Your task to perform on an android device: uninstall "Google Play Games" Image 0: 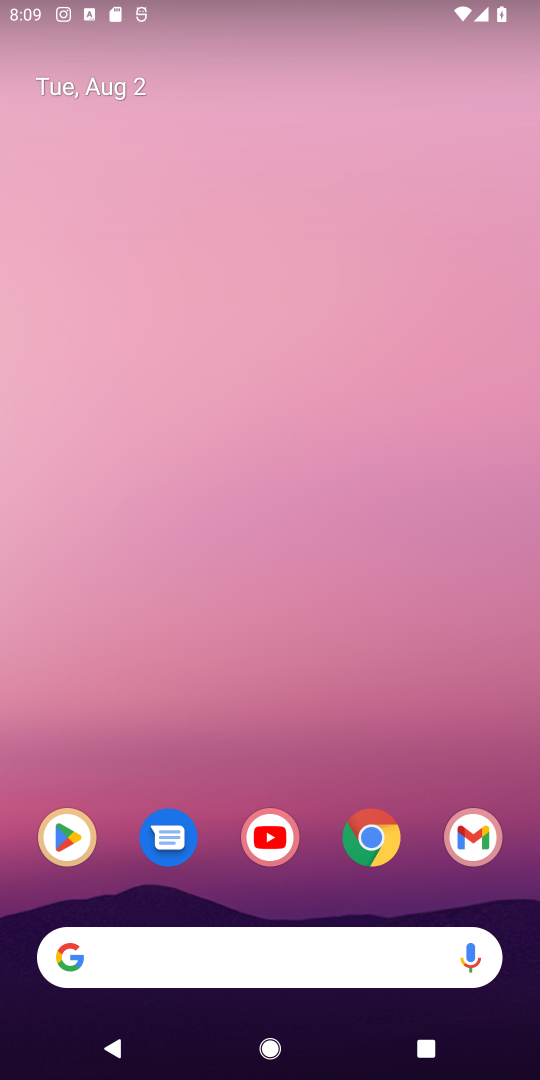
Step 0: click (60, 850)
Your task to perform on an android device: uninstall "Google Play Games" Image 1: 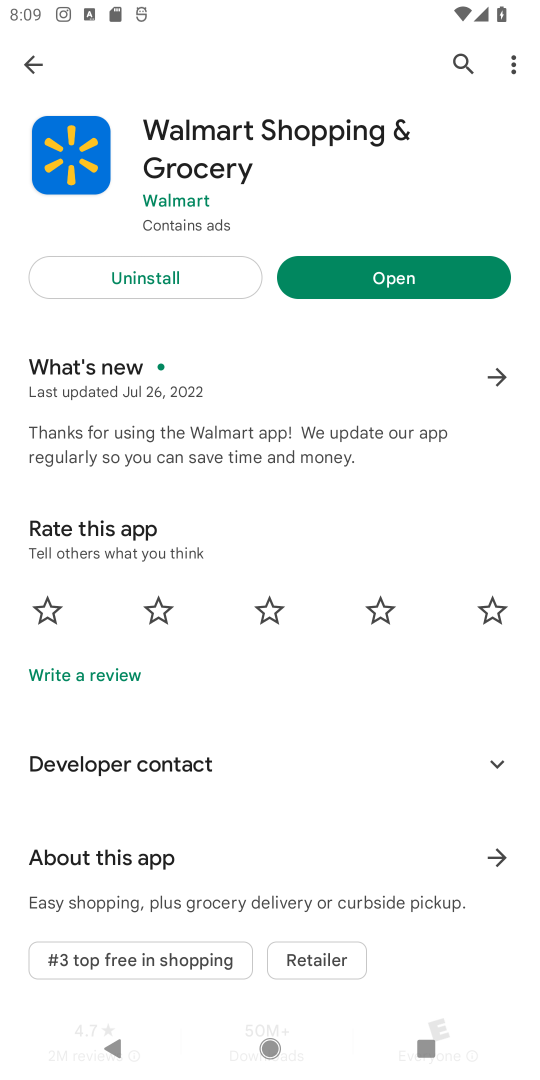
Step 1: click (460, 66)
Your task to perform on an android device: uninstall "Google Play Games" Image 2: 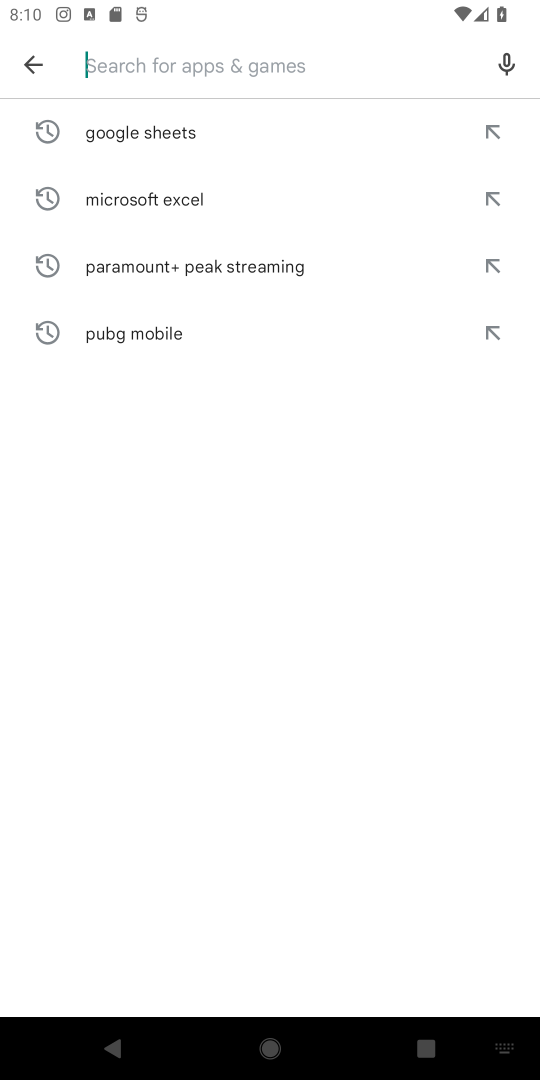
Step 2: press home button
Your task to perform on an android device: uninstall "Google Play Games" Image 3: 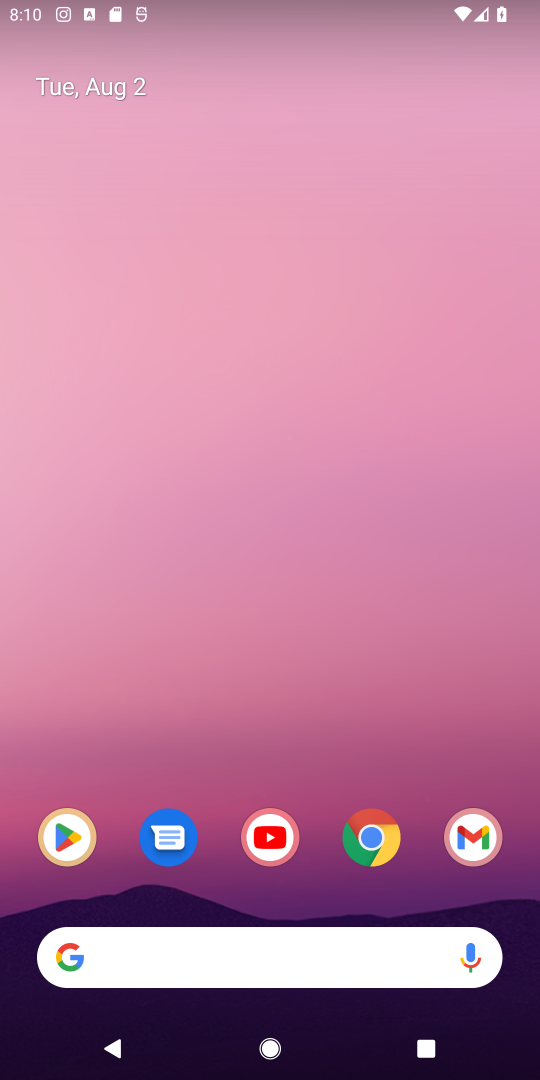
Step 3: click (66, 851)
Your task to perform on an android device: uninstall "Google Play Games" Image 4: 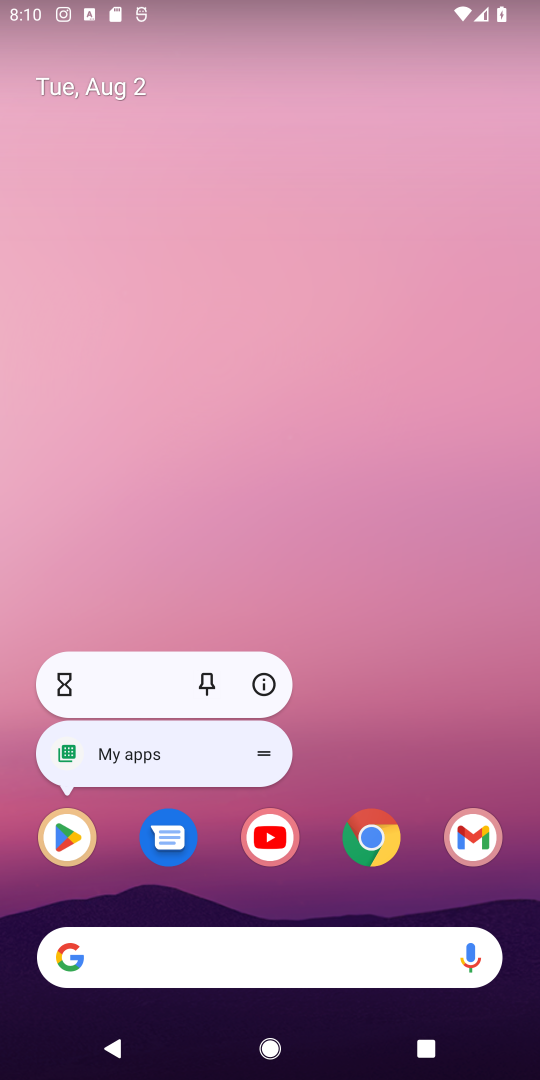
Step 4: click (67, 841)
Your task to perform on an android device: uninstall "Google Play Games" Image 5: 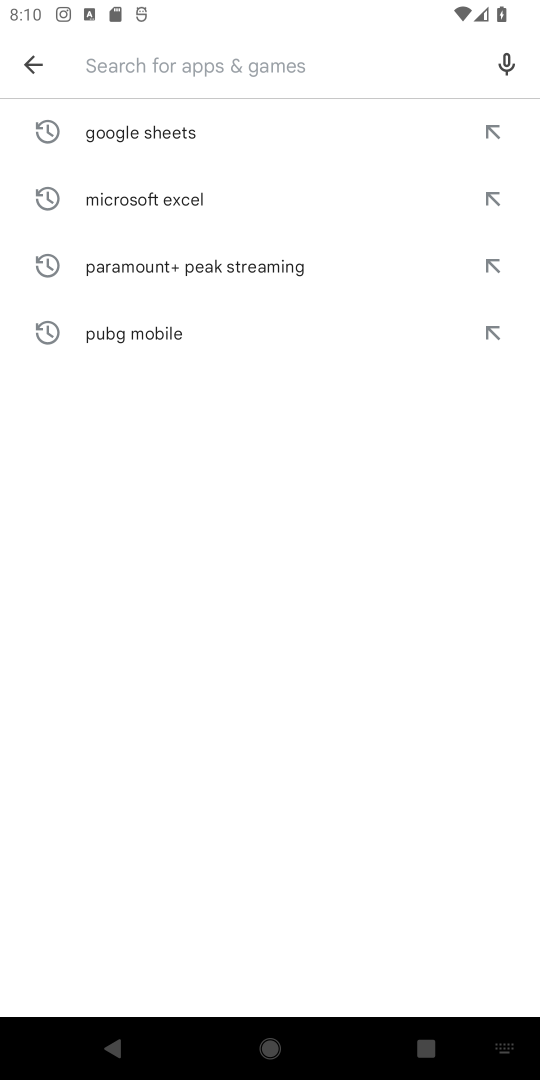
Step 5: click (308, 62)
Your task to perform on an android device: uninstall "Google Play Games" Image 6: 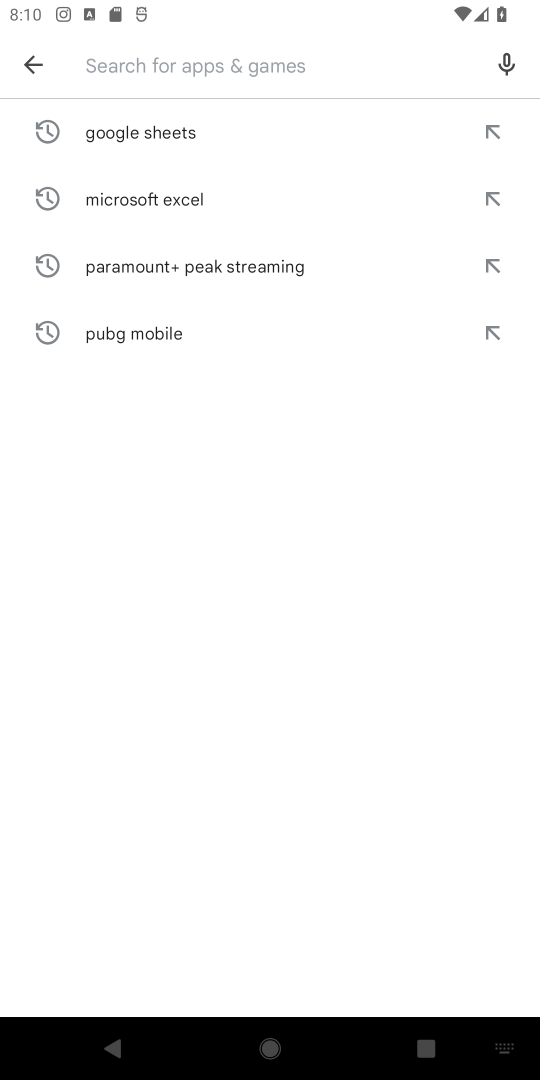
Step 6: type "Google Play Games"
Your task to perform on an android device: uninstall "Google Play Games" Image 7: 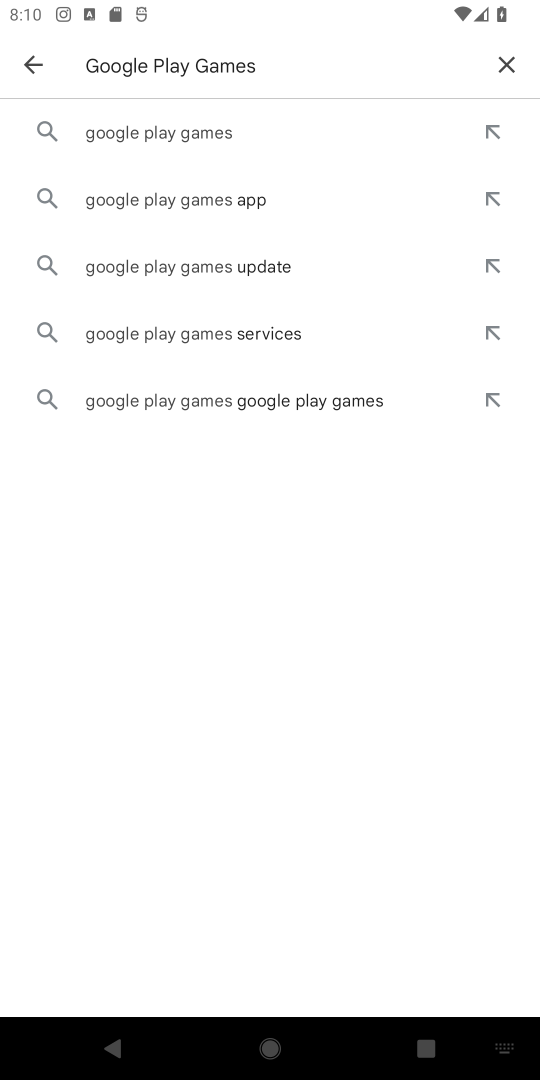
Step 7: click (173, 147)
Your task to perform on an android device: uninstall "Google Play Games" Image 8: 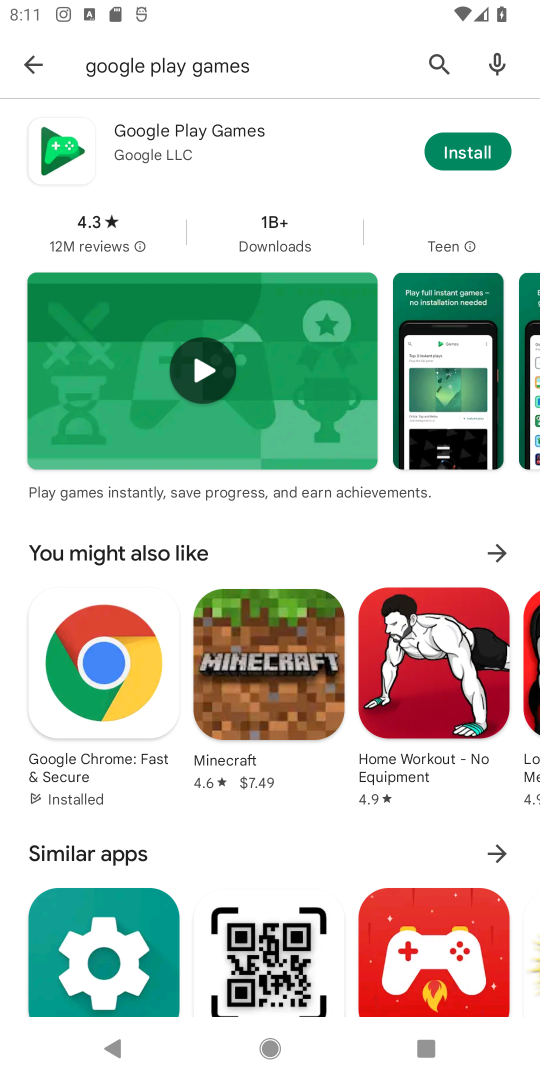
Step 8: task complete